Your task to perform on an android device: View the shopping cart on newegg.com. Add "logitech g502" to the cart on newegg.com Image 0: 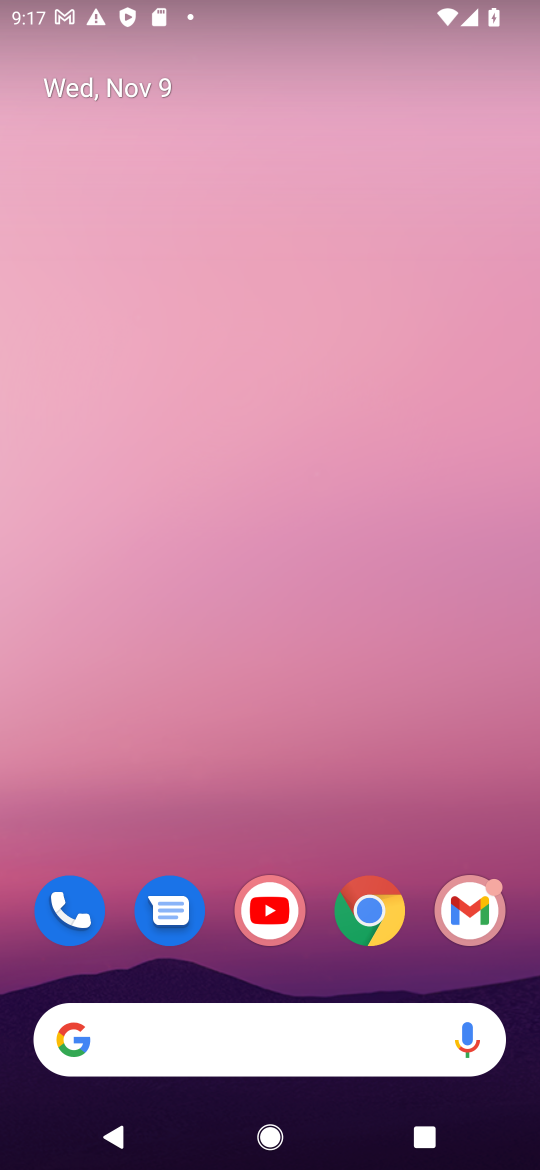
Step 0: click (357, 921)
Your task to perform on an android device: View the shopping cart on newegg.com. Add "logitech g502" to the cart on newegg.com Image 1: 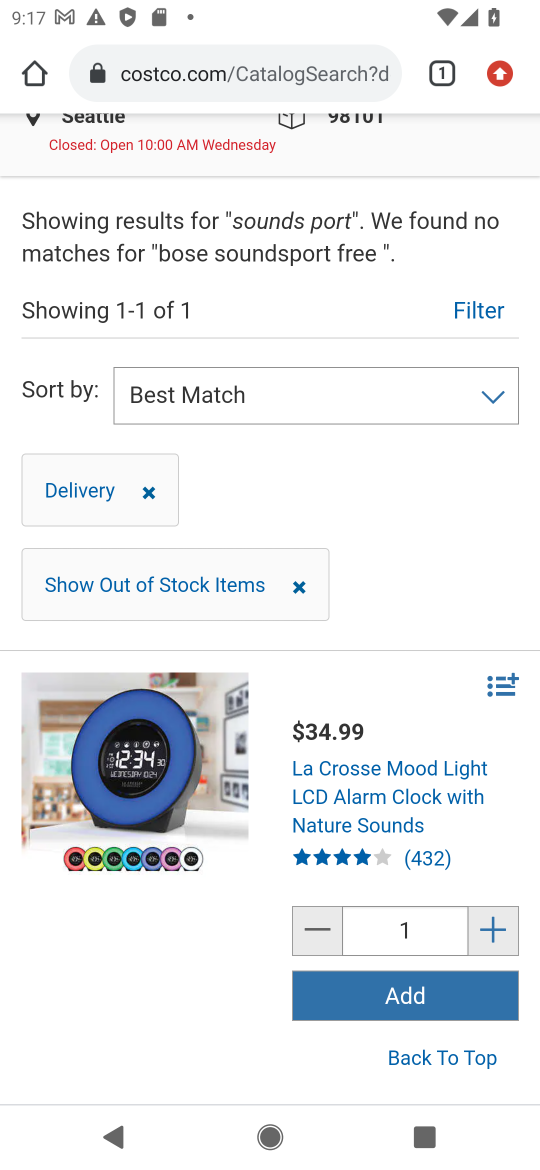
Step 1: click (190, 62)
Your task to perform on an android device: View the shopping cart on newegg.com. Add "logitech g502" to the cart on newegg.com Image 2: 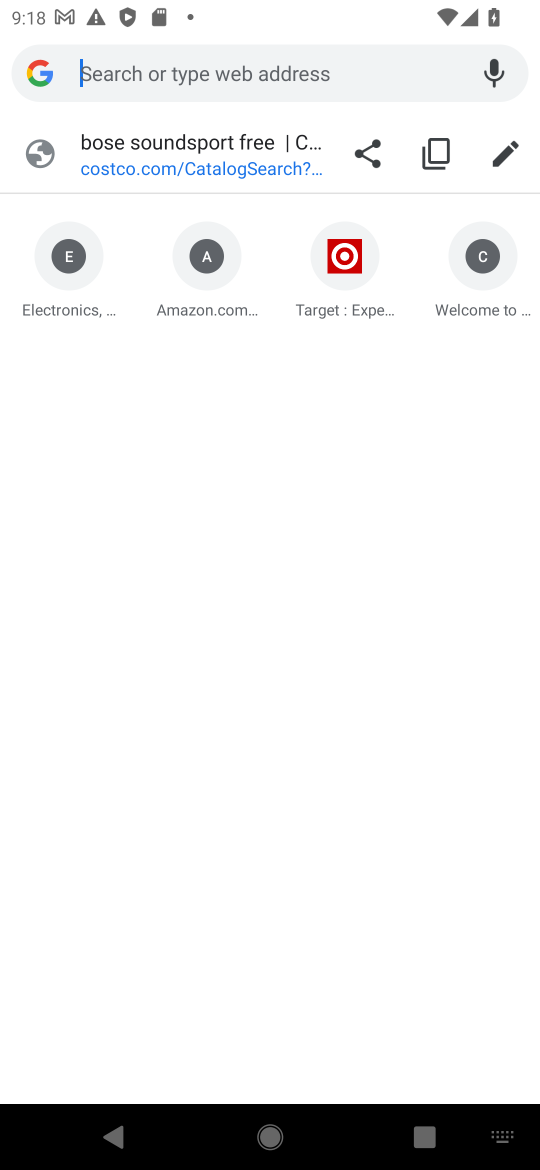
Step 2: type "newegg.com"
Your task to perform on an android device: View the shopping cart on newegg.com. Add "logitech g502" to the cart on newegg.com Image 3: 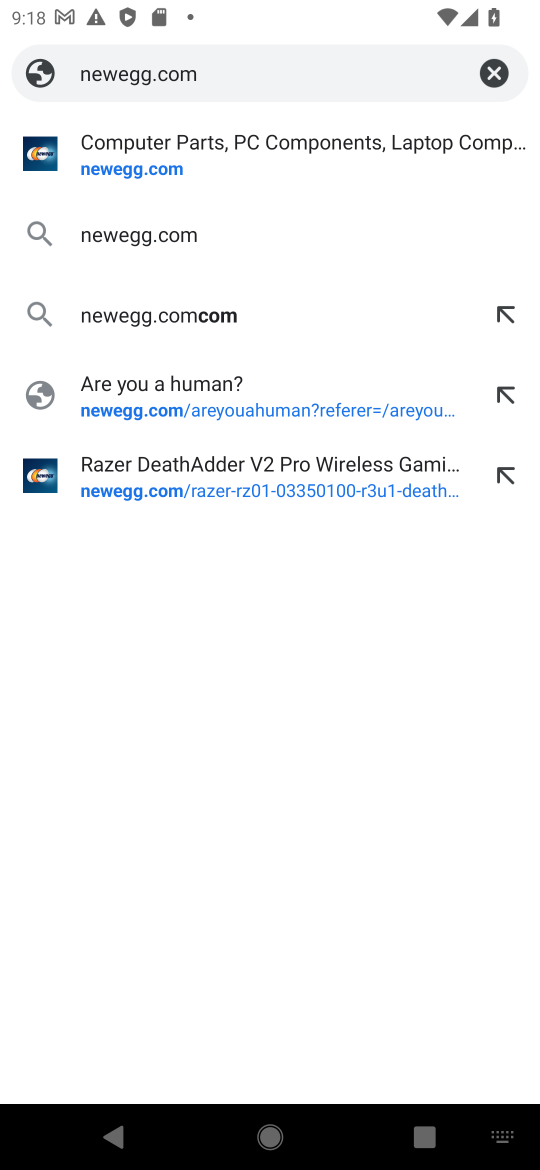
Step 3: click (106, 165)
Your task to perform on an android device: View the shopping cart on newegg.com. Add "logitech g502" to the cart on newegg.com Image 4: 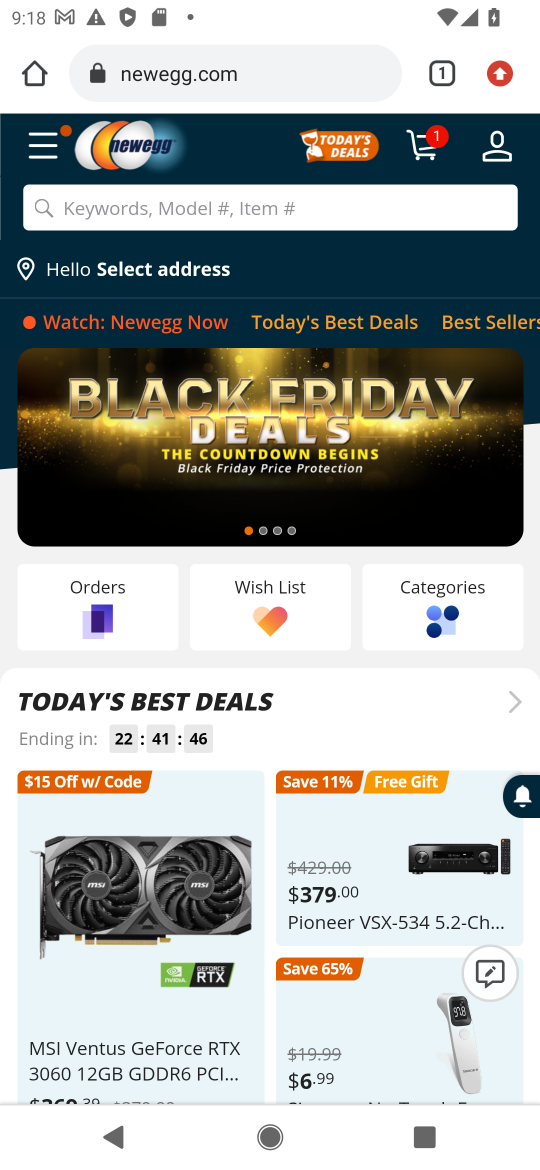
Step 4: click (425, 150)
Your task to perform on an android device: View the shopping cart on newegg.com. Add "logitech g502" to the cart on newegg.com Image 5: 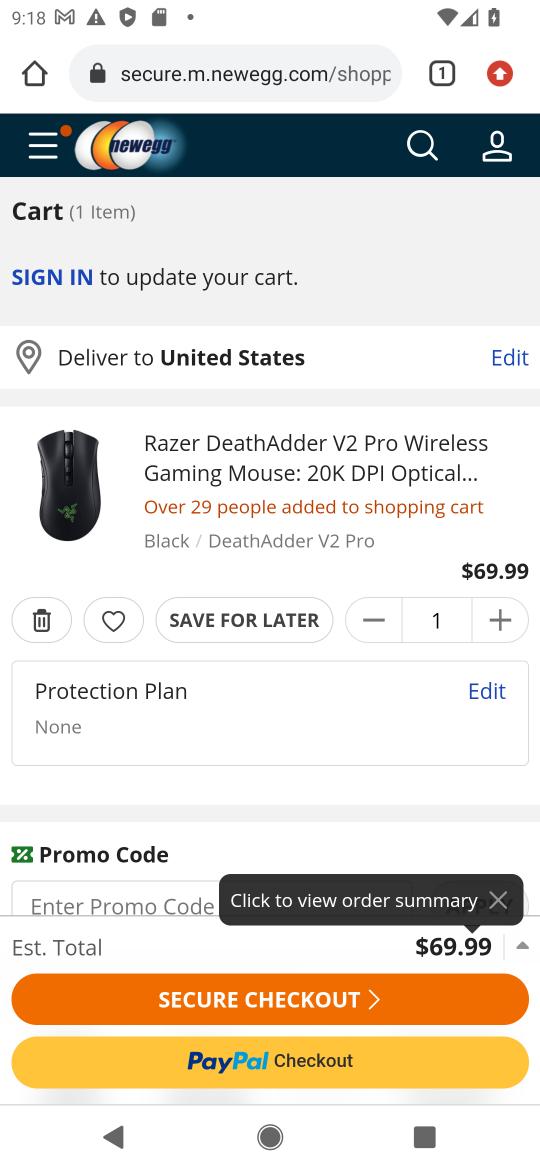
Step 5: drag from (267, 733) to (267, 524)
Your task to perform on an android device: View the shopping cart on newegg.com. Add "logitech g502" to the cart on newegg.com Image 6: 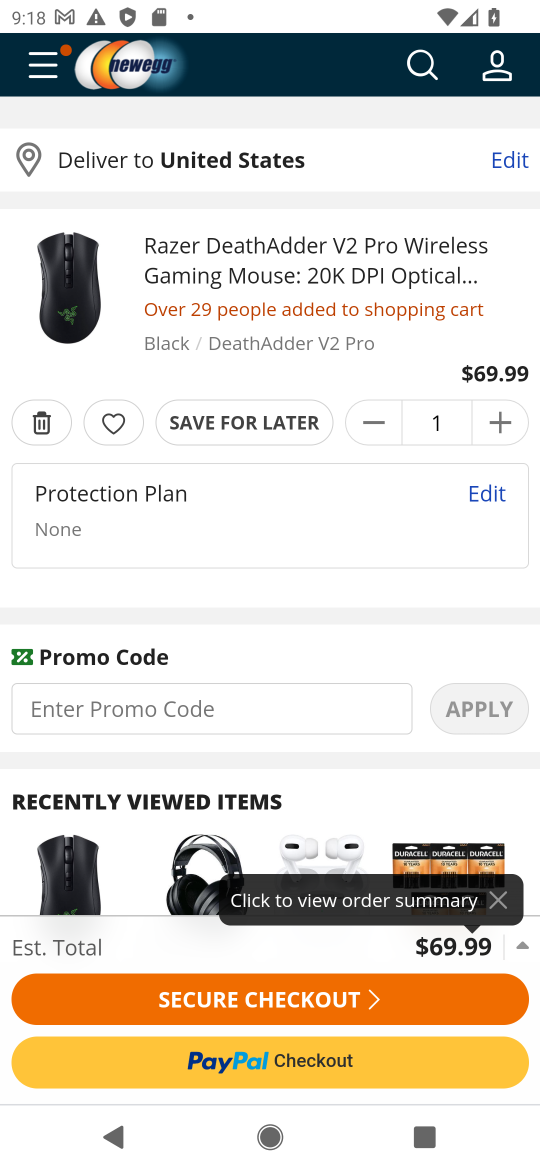
Step 6: drag from (265, 594) to (280, 910)
Your task to perform on an android device: View the shopping cart on newegg.com. Add "logitech g502" to the cart on newegg.com Image 7: 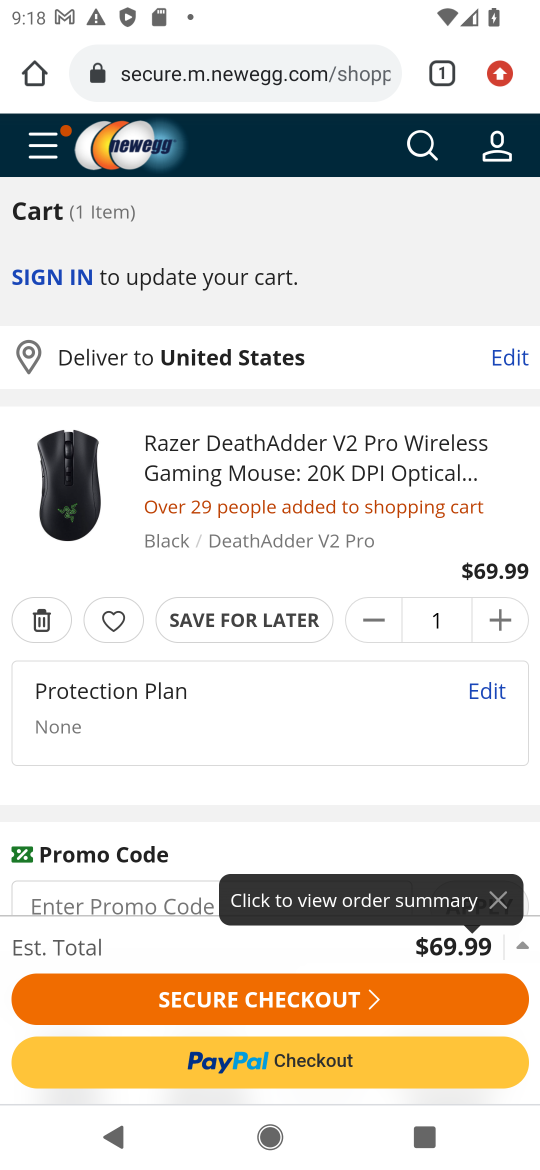
Step 7: click (405, 141)
Your task to perform on an android device: View the shopping cart on newegg.com. Add "logitech g502" to the cart on newegg.com Image 8: 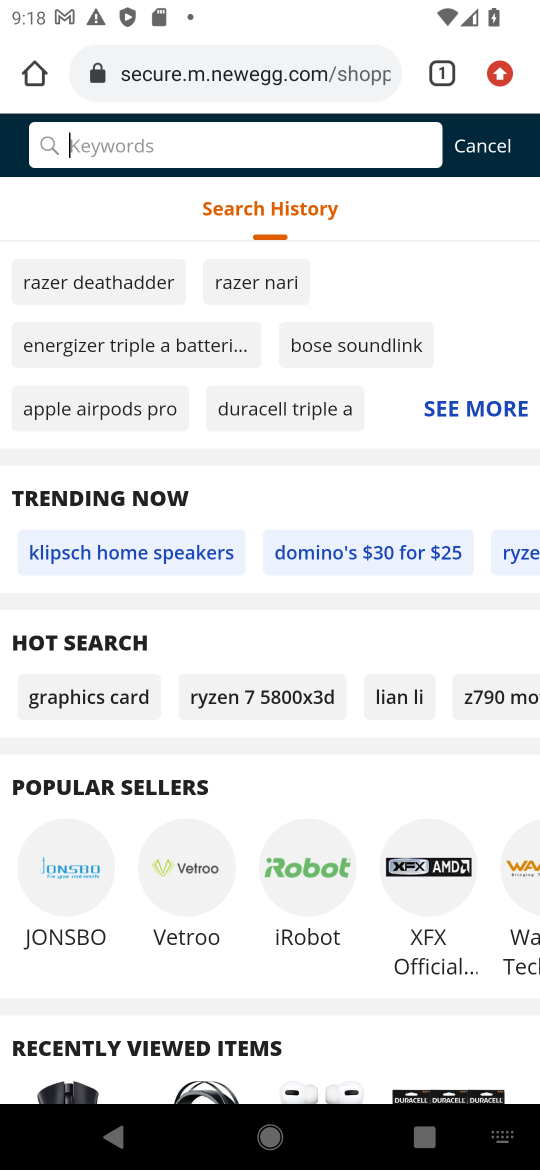
Step 8: type "logitech g502"
Your task to perform on an android device: View the shopping cart on newegg.com. Add "logitech g502" to the cart on newegg.com Image 9: 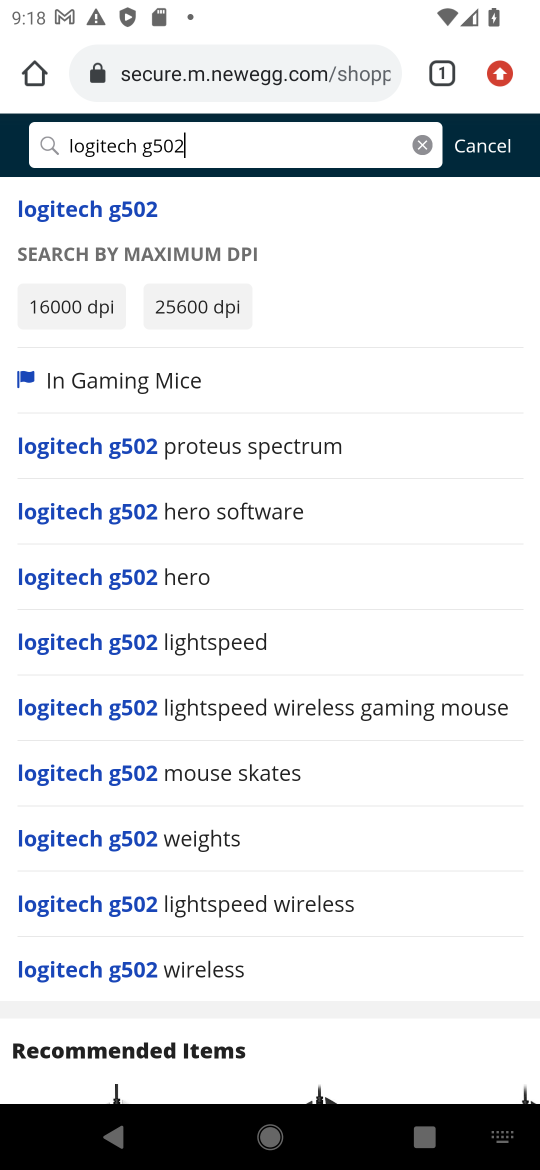
Step 9: click (113, 225)
Your task to perform on an android device: View the shopping cart on newegg.com. Add "logitech g502" to the cart on newegg.com Image 10: 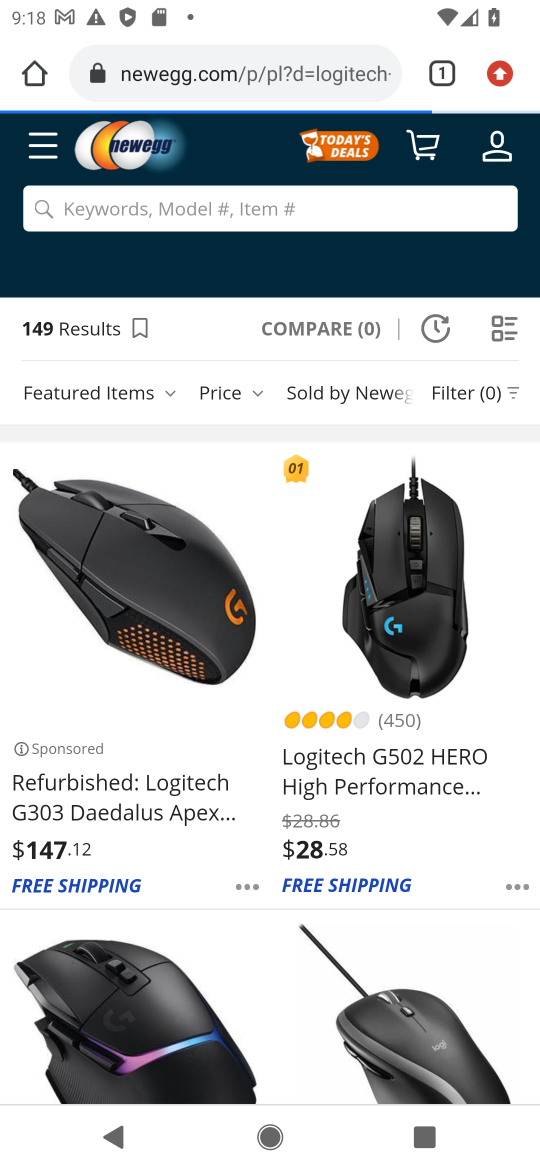
Step 10: click (410, 683)
Your task to perform on an android device: View the shopping cart on newegg.com. Add "logitech g502" to the cart on newegg.com Image 11: 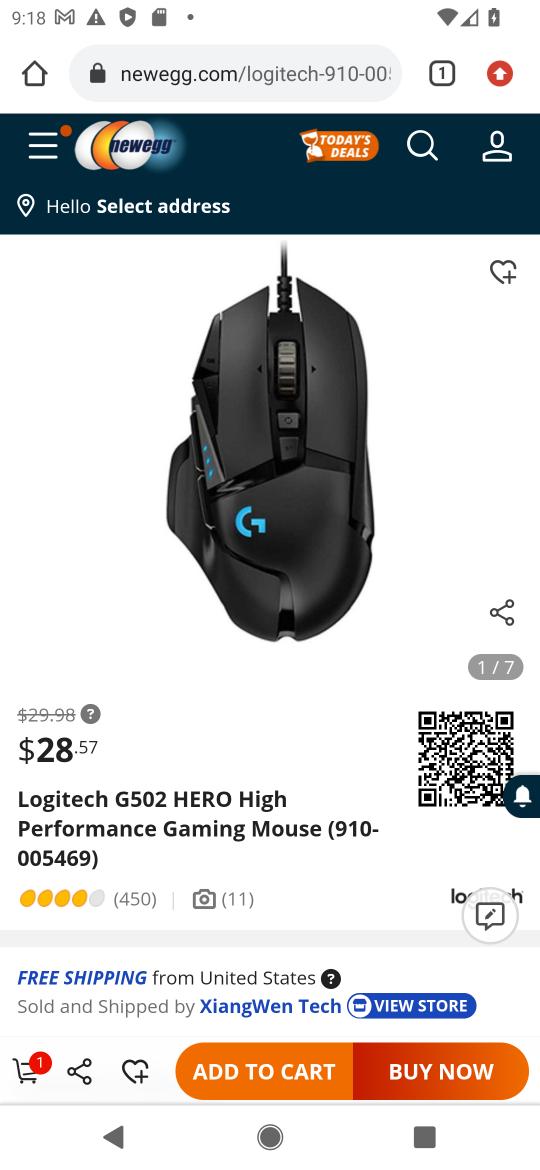
Step 11: click (268, 1079)
Your task to perform on an android device: View the shopping cart on newegg.com. Add "logitech g502" to the cart on newegg.com Image 12: 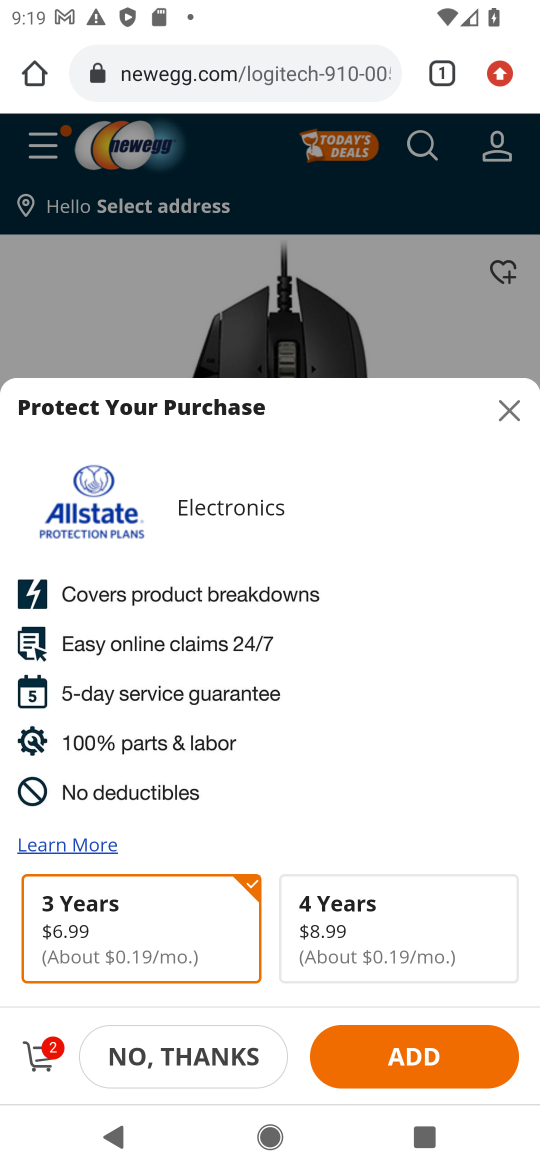
Step 12: task complete